Your task to perform on an android device: Empty the shopping cart on bestbuy. Search for "usb-a to usb-b" on bestbuy, select the first entry, and add it to the cart. Image 0: 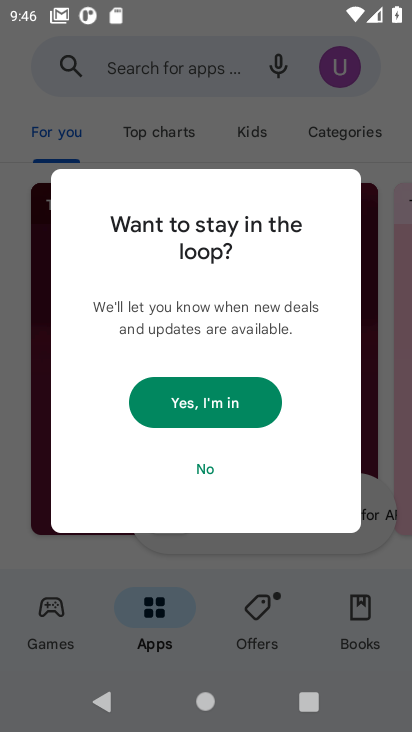
Step 0: press home button
Your task to perform on an android device: Empty the shopping cart on bestbuy. Search for "usb-a to usb-b" on bestbuy, select the first entry, and add it to the cart. Image 1: 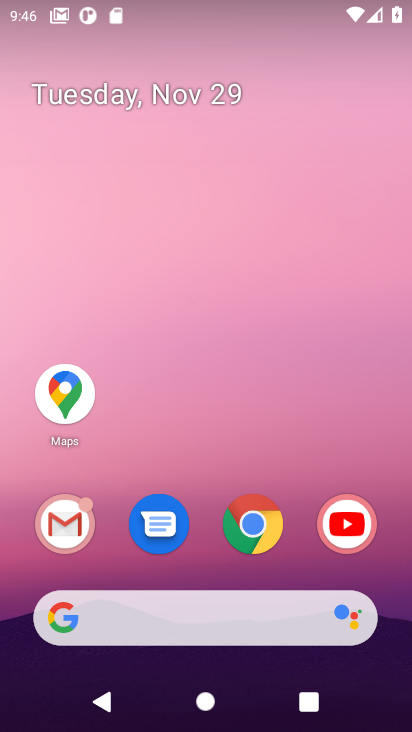
Step 1: click (265, 526)
Your task to perform on an android device: Empty the shopping cart on bestbuy. Search for "usb-a to usb-b" on bestbuy, select the first entry, and add it to the cart. Image 2: 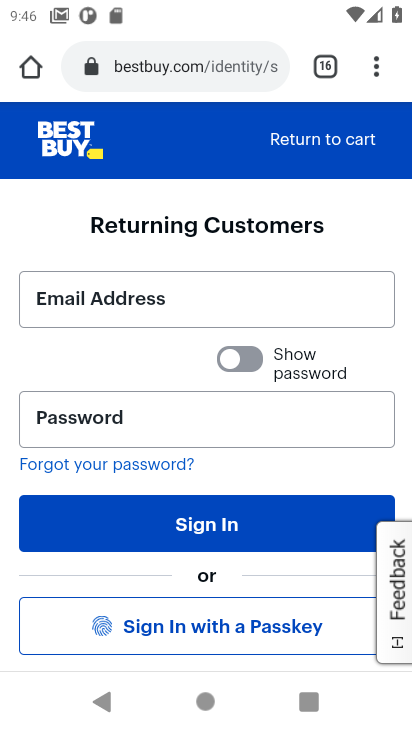
Step 2: click (304, 139)
Your task to perform on an android device: Empty the shopping cart on bestbuy. Search for "usb-a to usb-b" on bestbuy, select the first entry, and add it to the cart. Image 3: 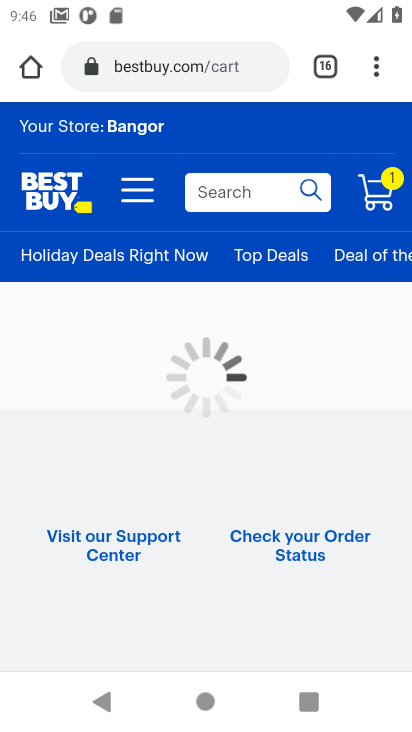
Step 3: click (388, 192)
Your task to perform on an android device: Empty the shopping cart on bestbuy. Search for "usb-a to usb-b" on bestbuy, select the first entry, and add it to the cart. Image 4: 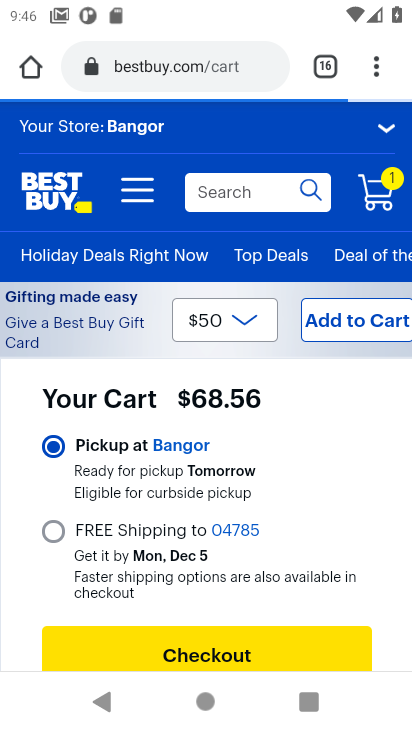
Step 4: drag from (292, 536) to (232, 213)
Your task to perform on an android device: Empty the shopping cart on bestbuy. Search for "usb-a to usb-b" on bestbuy, select the first entry, and add it to the cart. Image 5: 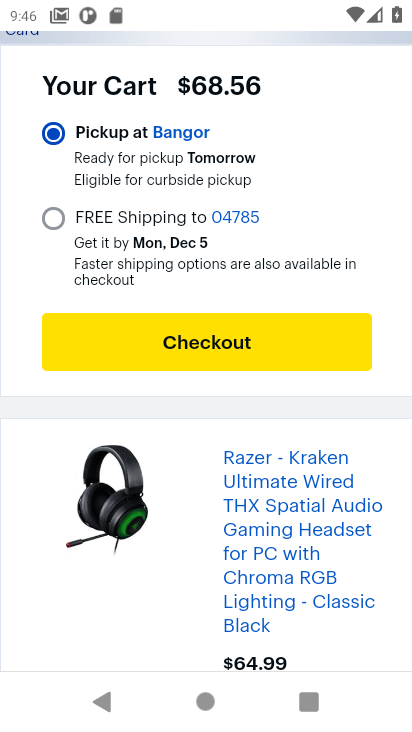
Step 5: drag from (281, 508) to (264, 238)
Your task to perform on an android device: Empty the shopping cart on bestbuy. Search for "usb-a to usb-b" on bestbuy, select the first entry, and add it to the cart. Image 6: 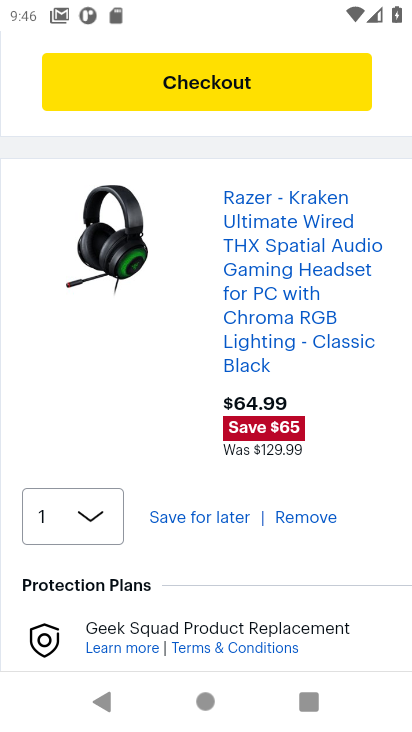
Step 6: click (297, 511)
Your task to perform on an android device: Empty the shopping cart on bestbuy. Search for "usb-a to usb-b" on bestbuy, select the first entry, and add it to the cart. Image 7: 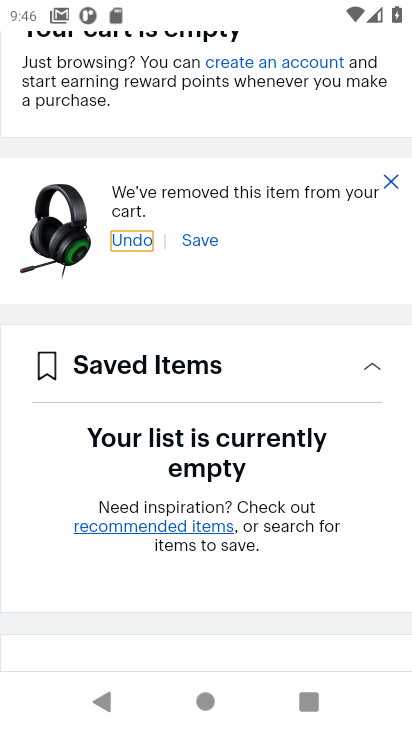
Step 7: drag from (230, 181) to (199, 457)
Your task to perform on an android device: Empty the shopping cart on bestbuy. Search for "usb-a to usb-b" on bestbuy, select the first entry, and add it to the cart. Image 8: 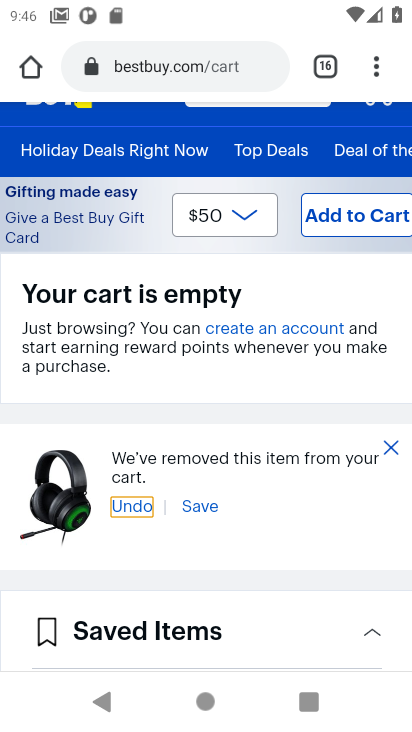
Step 8: drag from (299, 300) to (244, 561)
Your task to perform on an android device: Empty the shopping cart on bestbuy. Search for "usb-a to usb-b" on bestbuy, select the first entry, and add it to the cart. Image 9: 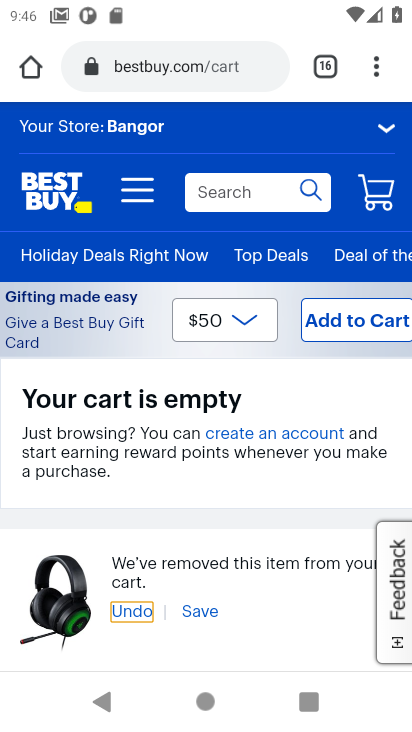
Step 9: click (196, 192)
Your task to perform on an android device: Empty the shopping cart on bestbuy. Search for "usb-a to usb-b" on bestbuy, select the first entry, and add it to the cart. Image 10: 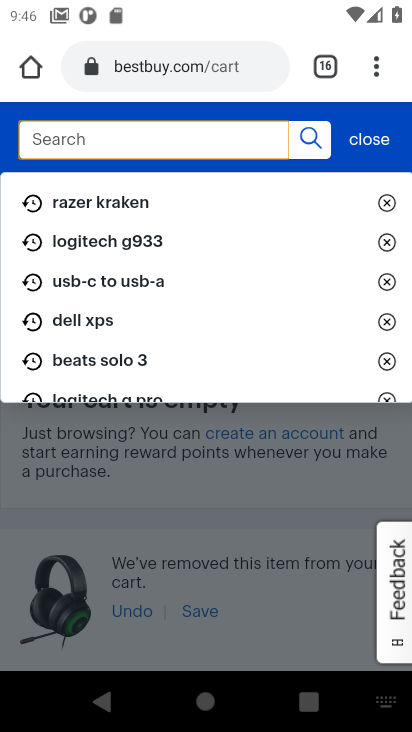
Step 10: type "usb-a to usb-b"
Your task to perform on an android device: Empty the shopping cart on bestbuy. Search for "usb-a to usb-b" on bestbuy, select the first entry, and add it to the cart. Image 11: 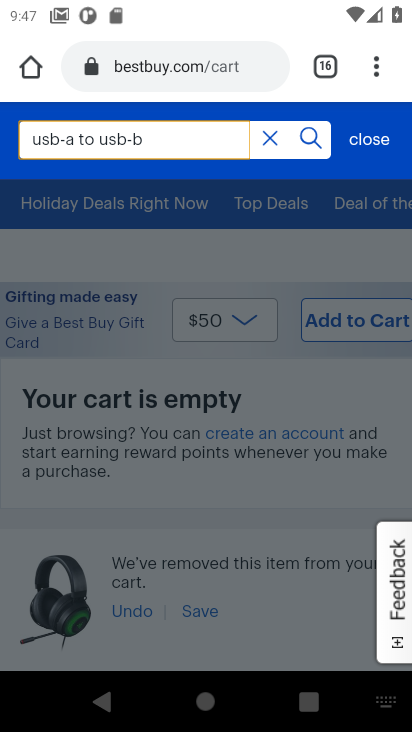
Step 11: click (306, 143)
Your task to perform on an android device: Empty the shopping cart on bestbuy. Search for "usb-a to usb-b" on bestbuy, select the first entry, and add it to the cart. Image 12: 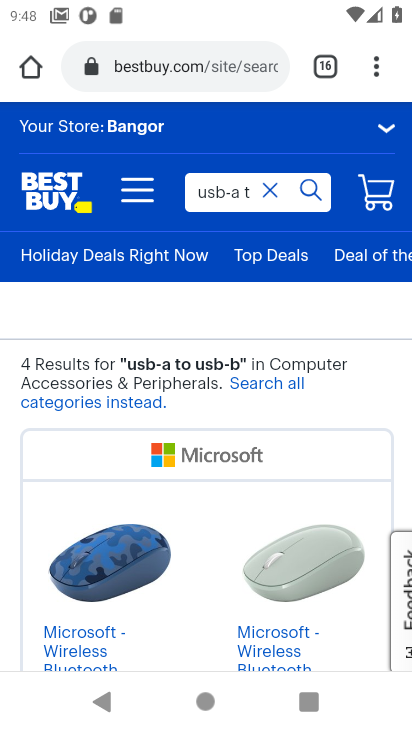
Step 12: drag from (176, 488) to (179, 256)
Your task to perform on an android device: Empty the shopping cart on bestbuy. Search for "usb-a to usb-b" on bestbuy, select the first entry, and add it to the cart. Image 13: 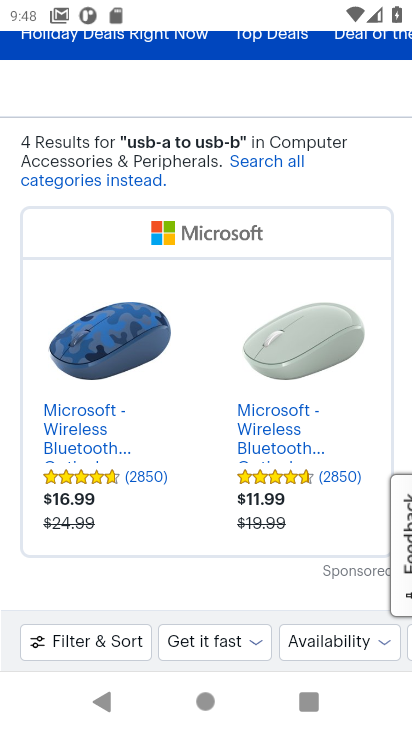
Step 13: drag from (176, 509) to (165, 248)
Your task to perform on an android device: Empty the shopping cart on bestbuy. Search for "usb-a to usb-b" on bestbuy, select the first entry, and add it to the cart. Image 14: 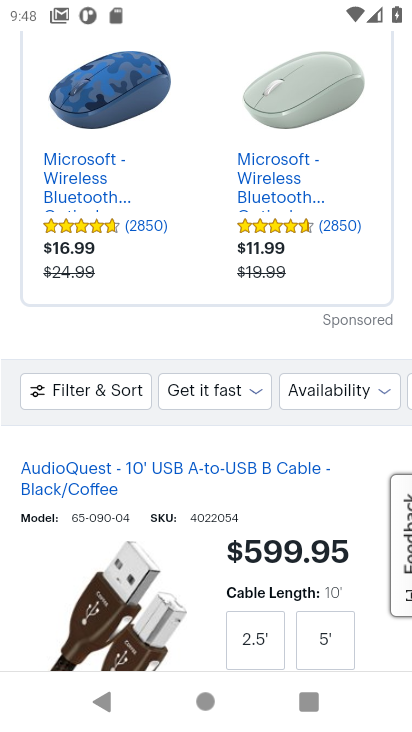
Step 14: drag from (174, 525) to (177, 284)
Your task to perform on an android device: Empty the shopping cart on bestbuy. Search for "usb-a to usb-b" on bestbuy, select the first entry, and add it to the cart. Image 15: 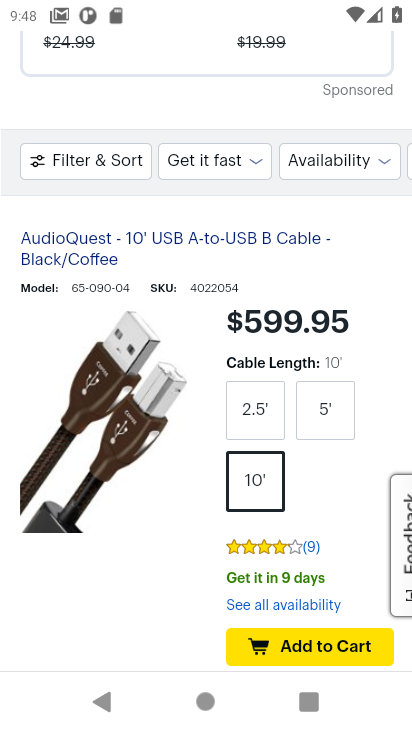
Step 15: click (291, 647)
Your task to perform on an android device: Empty the shopping cart on bestbuy. Search for "usb-a to usb-b" on bestbuy, select the first entry, and add it to the cart. Image 16: 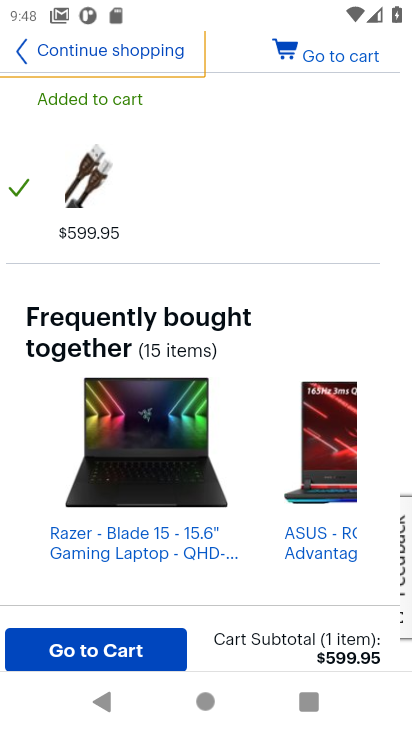
Step 16: task complete